Your task to perform on an android device: Open Yahoo.com Image 0: 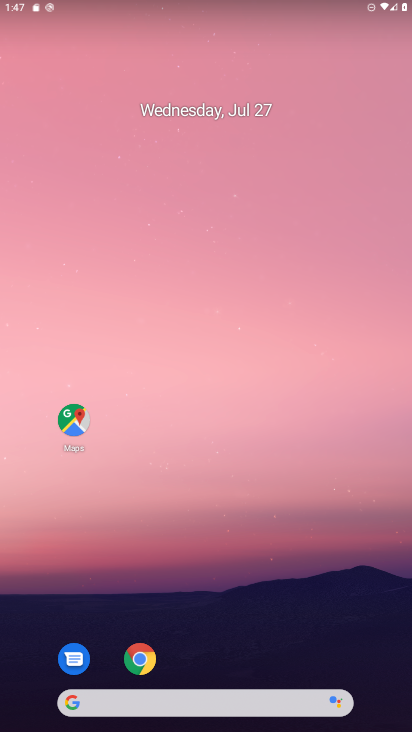
Step 0: drag from (319, 635) to (165, 141)
Your task to perform on an android device: Open Yahoo.com Image 1: 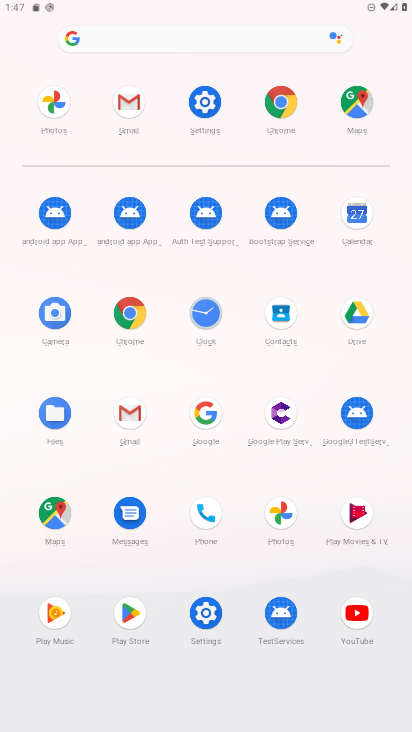
Step 1: click (283, 110)
Your task to perform on an android device: Open Yahoo.com Image 2: 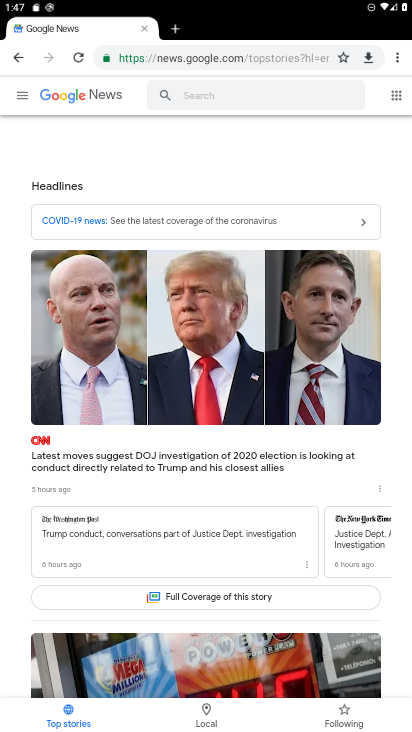
Step 2: click (249, 60)
Your task to perform on an android device: Open Yahoo.com Image 3: 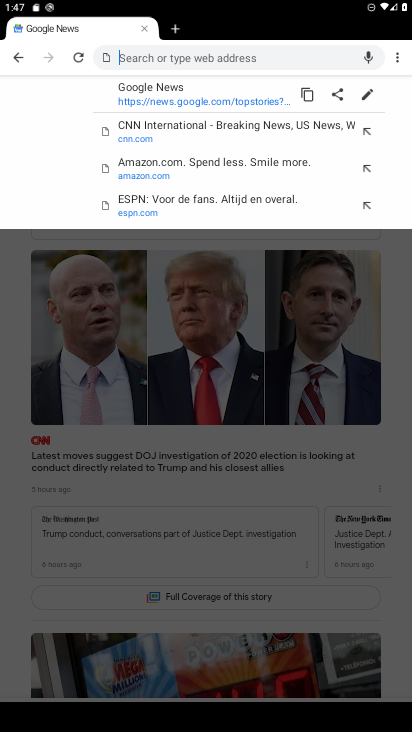
Step 3: type "yahoo.com"
Your task to perform on an android device: Open Yahoo.com Image 4: 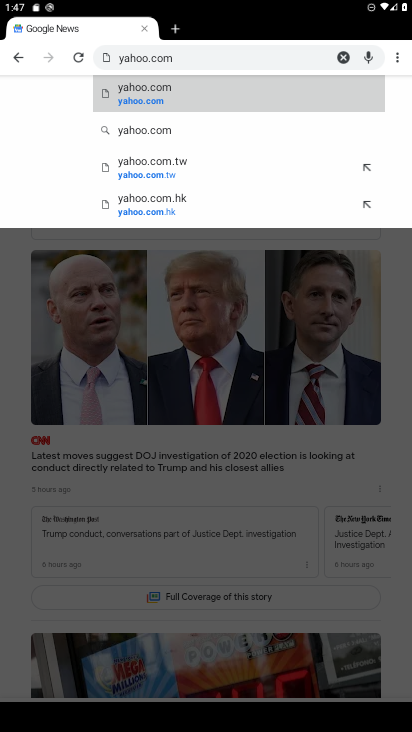
Step 4: click (163, 101)
Your task to perform on an android device: Open Yahoo.com Image 5: 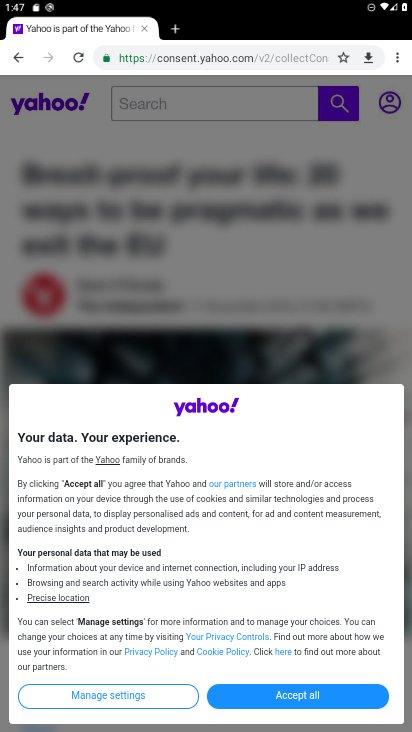
Step 5: task complete